Your task to perform on an android device: turn on wifi Image 0: 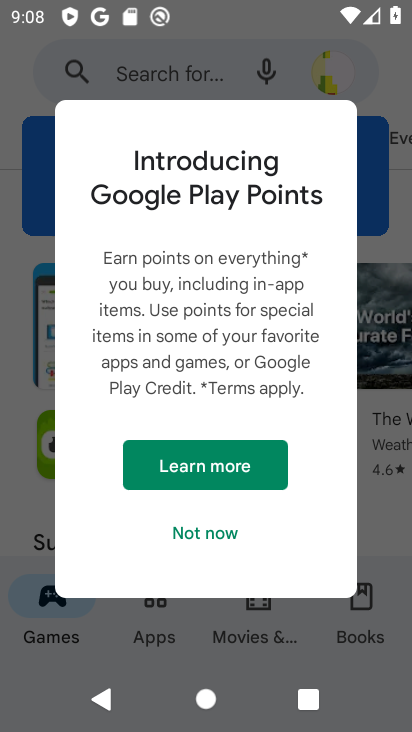
Step 0: press home button
Your task to perform on an android device: turn on wifi Image 1: 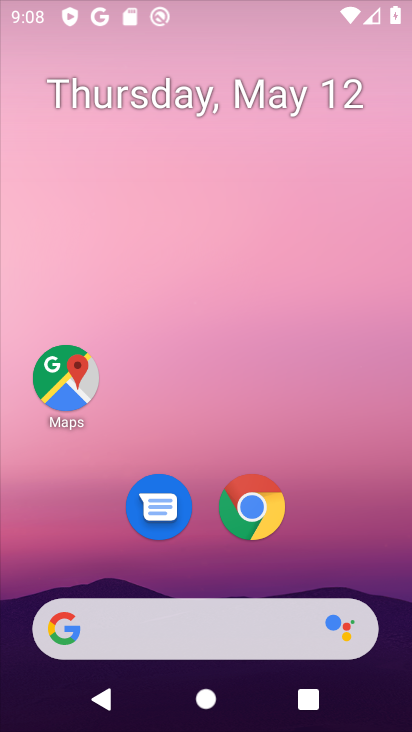
Step 1: drag from (213, 565) to (222, 162)
Your task to perform on an android device: turn on wifi Image 2: 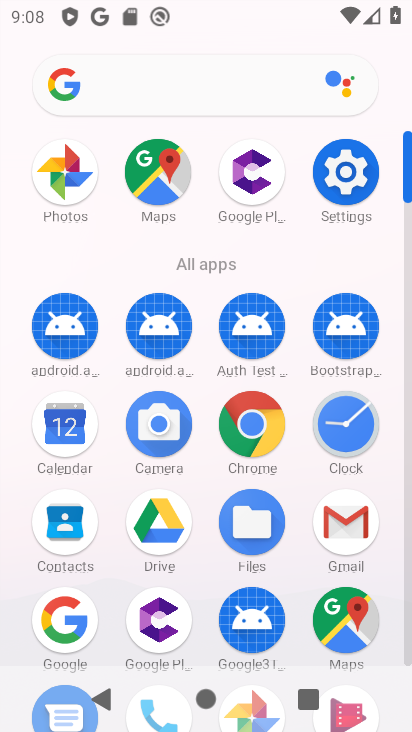
Step 2: click (357, 179)
Your task to perform on an android device: turn on wifi Image 3: 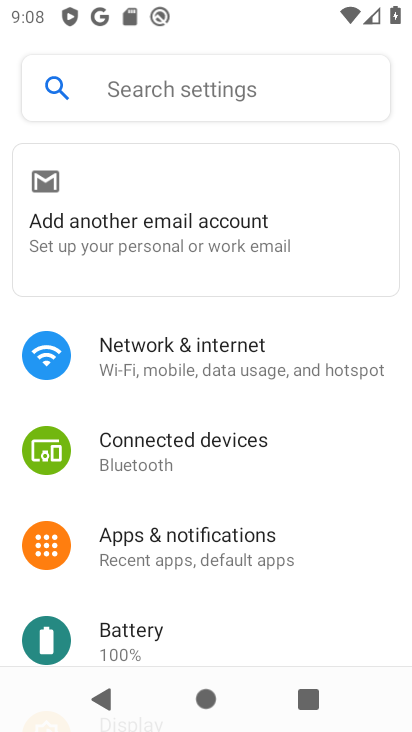
Step 3: click (156, 347)
Your task to perform on an android device: turn on wifi Image 4: 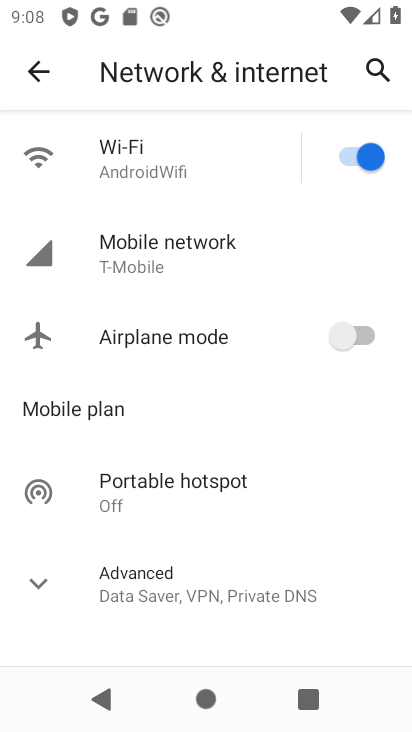
Step 4: task complete